Your task to perform on an android device: clear history in the chrome app Image 0: 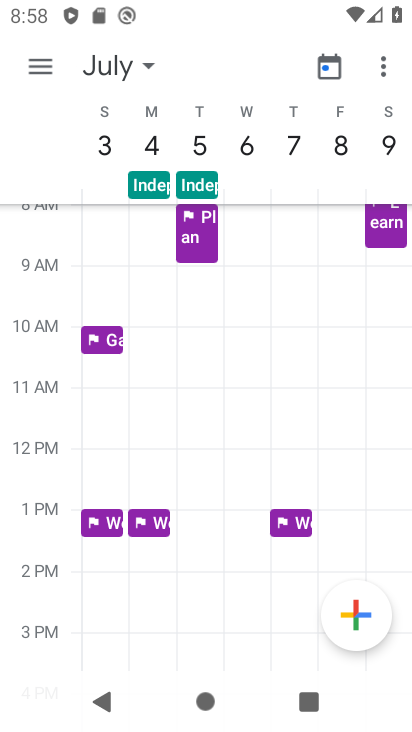
Step 0: press home button
Your task to perform on an android device: clear history in the chrome app Image 1: 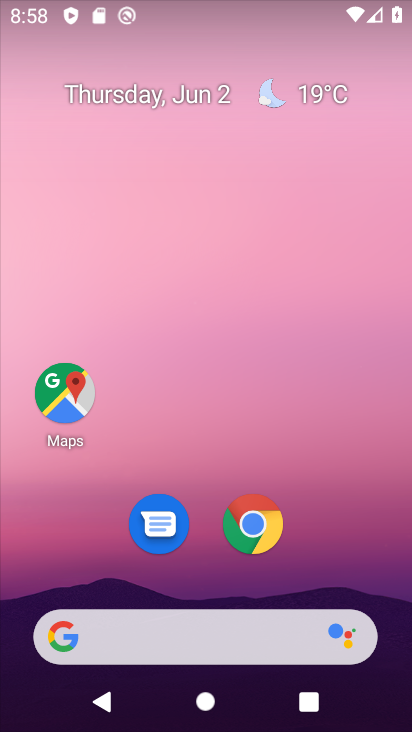
Step 1: click (254, 528)
Your task to perform on an android device: clear history in the chrome app Image 2: 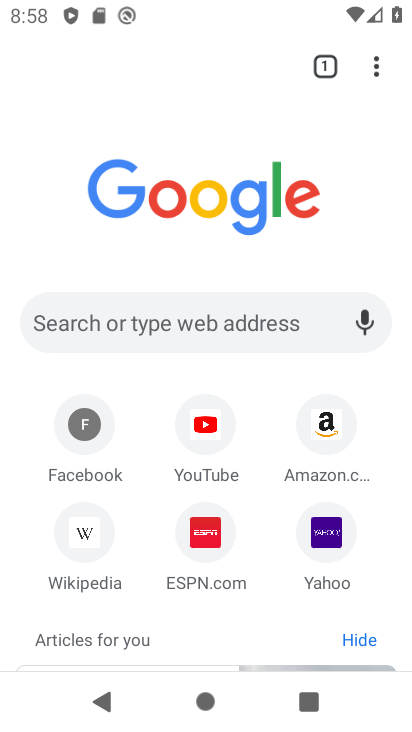
Step 2: click (376, 72)
Your task to perform on an android device: clear history in the chrome app Image 3: 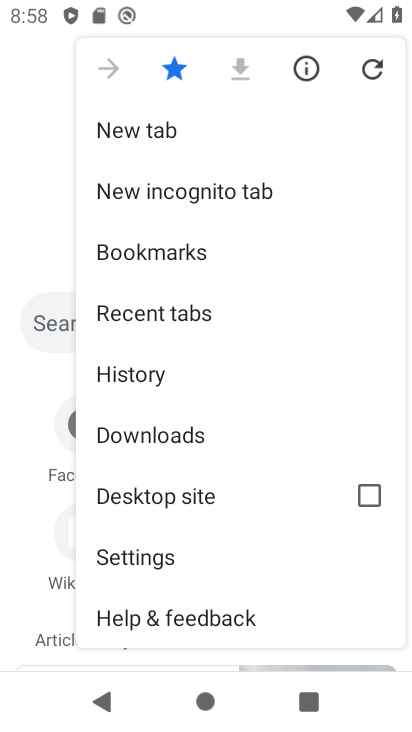
Step 3: click (167, 372)
Your task to perform on an android device: clear history in the chrome app Image 4: 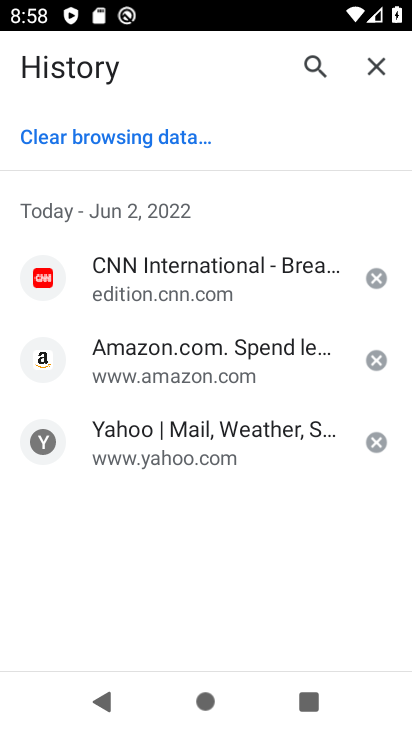
Step 4: click (140, 134)
Your task to perform on an android device: clear history in the chrome app Image 5: 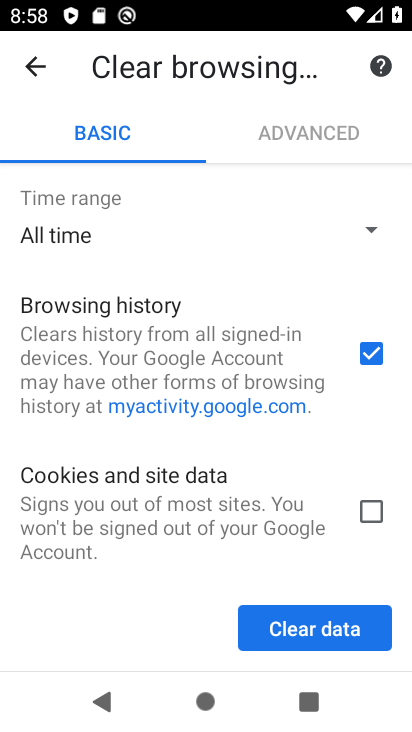
Step 5: click (371, 516)
Your task to perform on an android device: clear history in the chrome app Image 6: 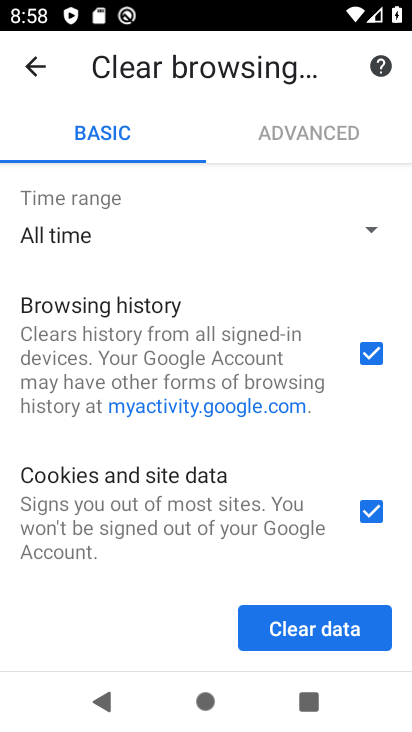
Step 6: drag from (275, 475) to (258, 207)
Your task to perform on an android device: clear history in the chrome app Image 7: 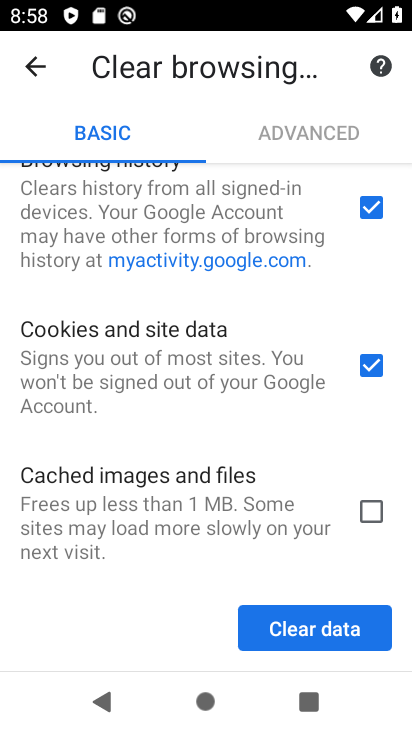
Step 7: click (365, 504)
Your task to perform on an android device: clear history in the chrome app Image 8: 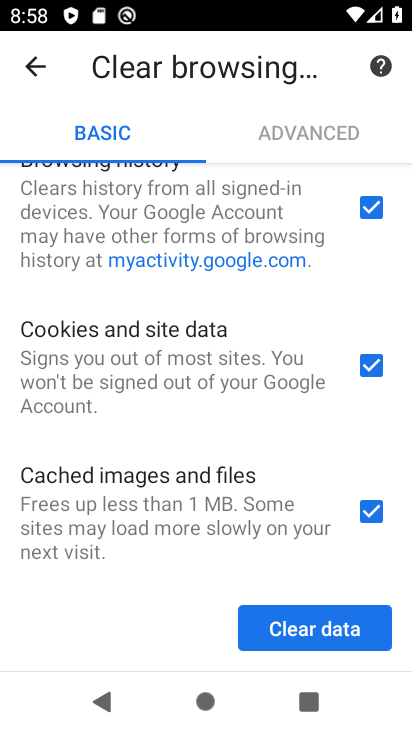
Step 8: click (374, 507)
Your task to perform on an android device: clear history in the chrome app Image 9: 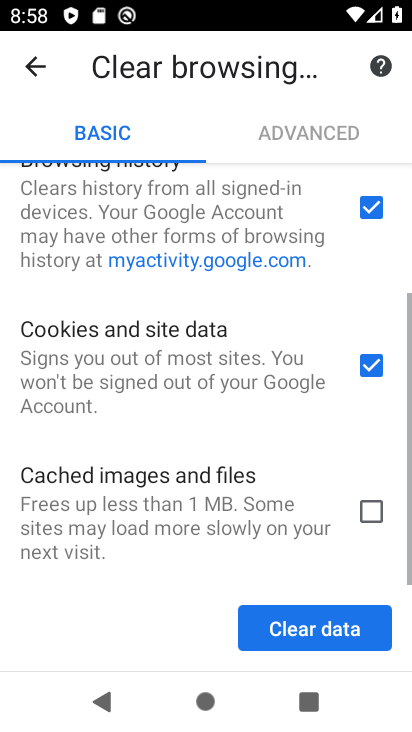
Step 9: click (379, 362)
Your task to perform on an android device: clear history in the chrome app Image 10: 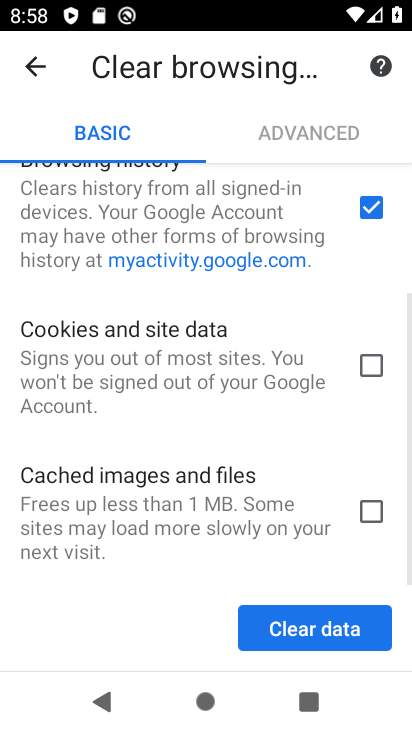
Step 10: click (325, 626)
Your task to perform on an android device: clear history in the chrome app Image 11: 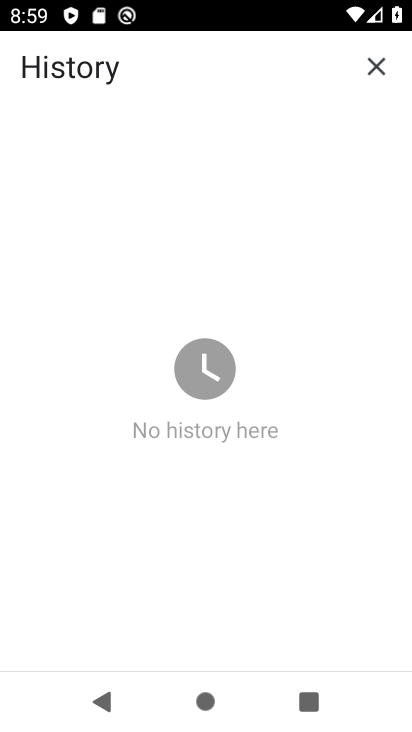
Step 11: task complete